Your task to perform on an android device: Open settings Image 0: 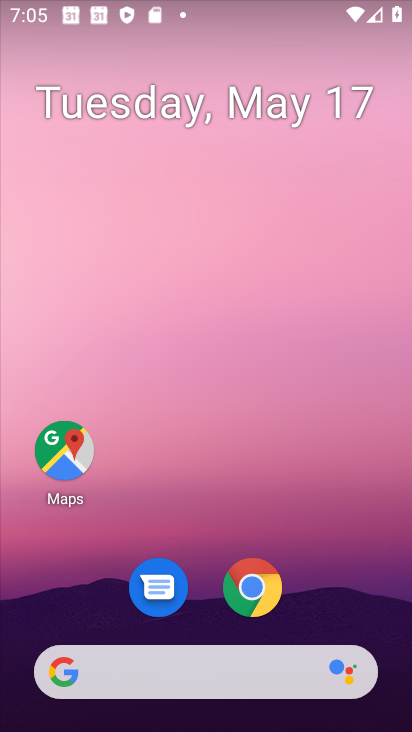
Step 0: drag from (248, 666) to (269, 87)
Your task to perform on an android device: Open settings Image 1: 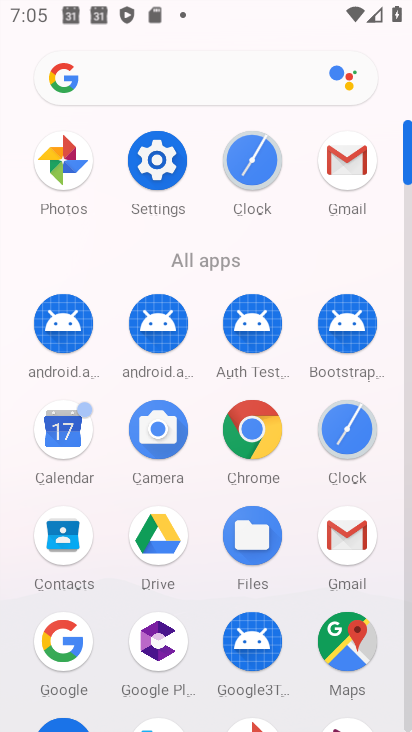
Step 1: click (160, 184)
Your task to perform on an android device: Open settings Image 2: 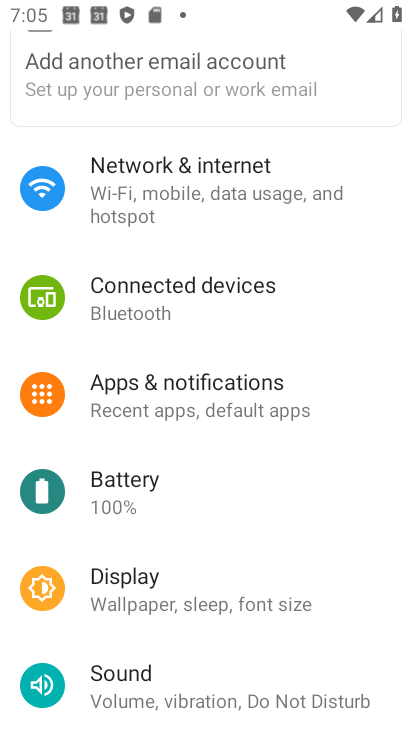
Step 2: click (258, 220)
Your task to perform on an android device: Open settings Image 3: 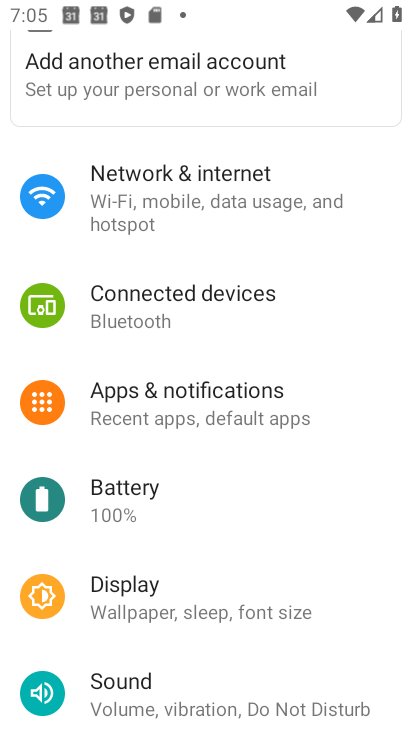
Step 3: drag from (233, 489) to (239, 239)
Your task to perform on an android device: Open settings Image 4: 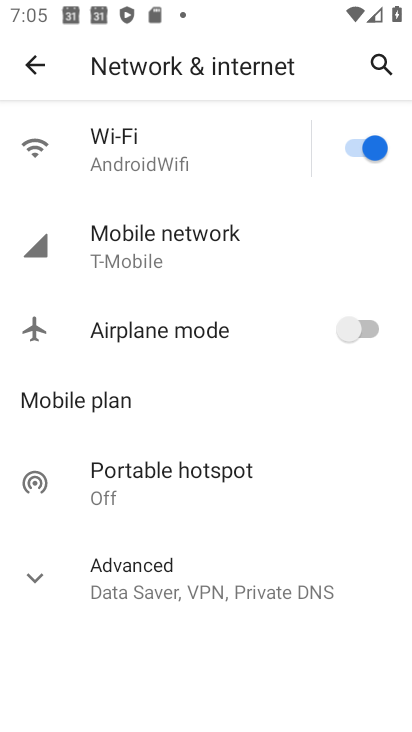
Step 4: click (38, 57)
Your task to perform on an android device: Open settings Image 5: 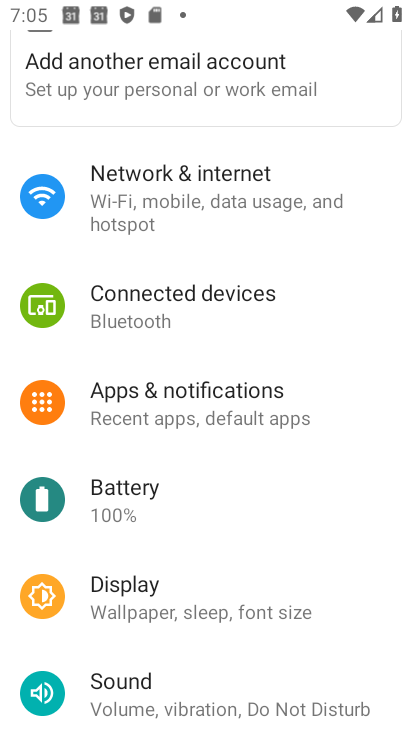
Step 5: task complete